Your task to perform on an android device: toggle airplane mode Image 0: 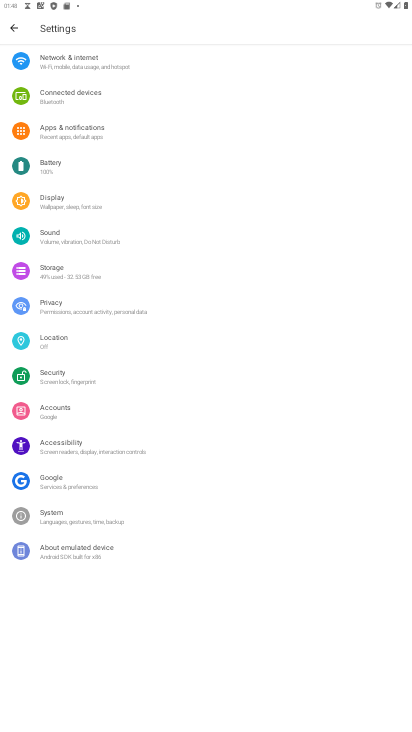
Step 0: click (136, 65)
Your task to perform on an android device: toggle airplane mode Image 1: 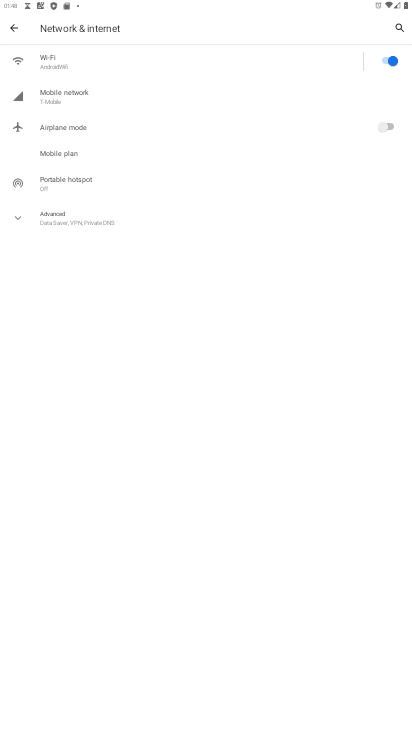
Step 1: click (87, 132)
Your task to perform on an android device: toggle airplane mode Image 2: 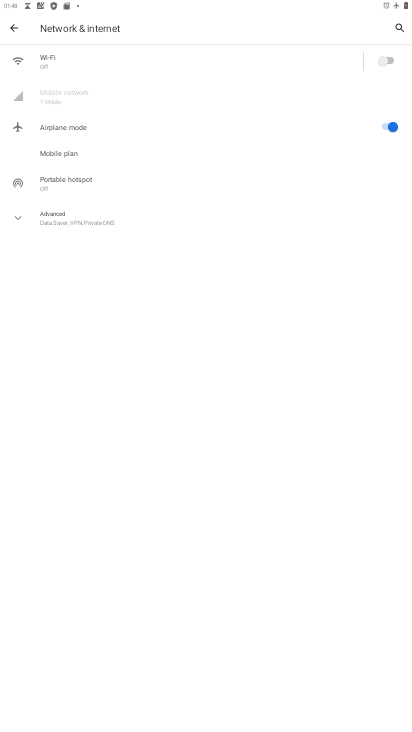
Step 2: task complete